Your task to perform on an android device: open device folders in google photos Image 0: 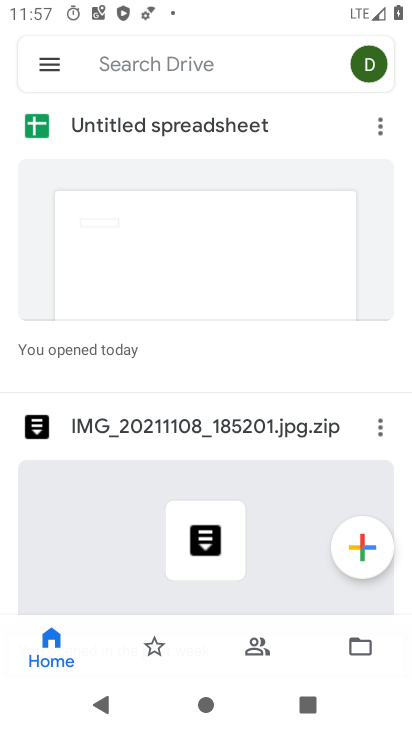
Step 0: press home button
Your task to perform on an android device: open device folders in google photos Image 1: 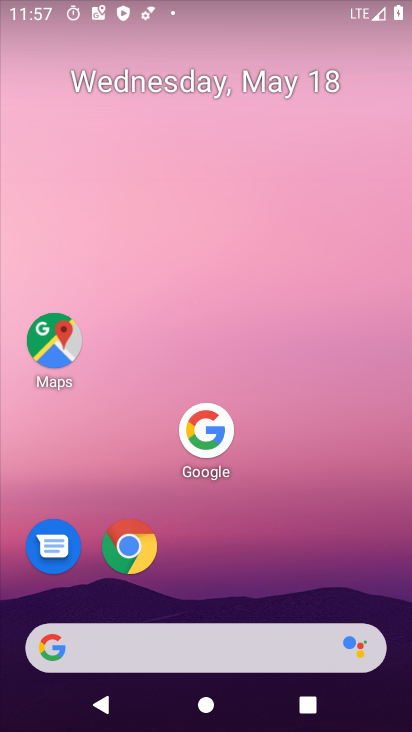
Step 1: drag from (248, 545) to (221, 19)
Your task to perform on an android device: open device folders in google photos Image 2: 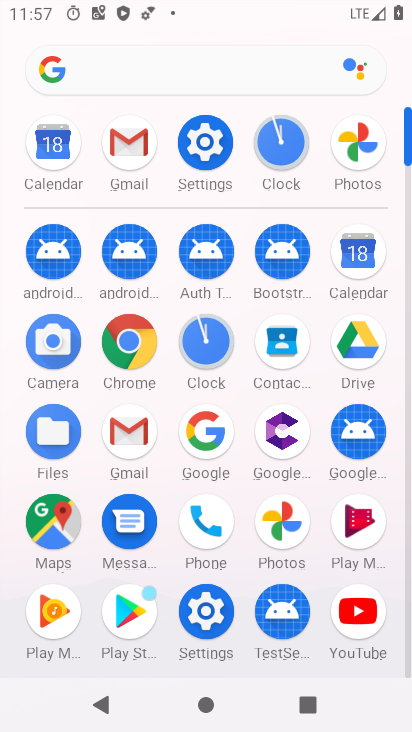
Step 2: click (285, 528)
Your task to perform on an android device: open device folders in google photos Image 3: 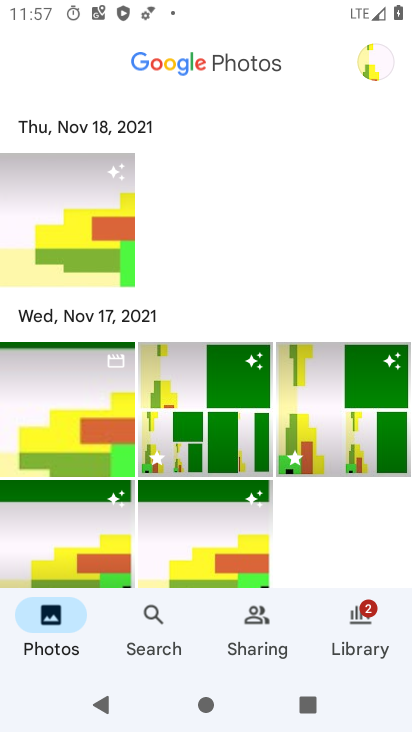
Step 3: task complete